Your task to perform on an android device: install app "Calculator" Image 0: 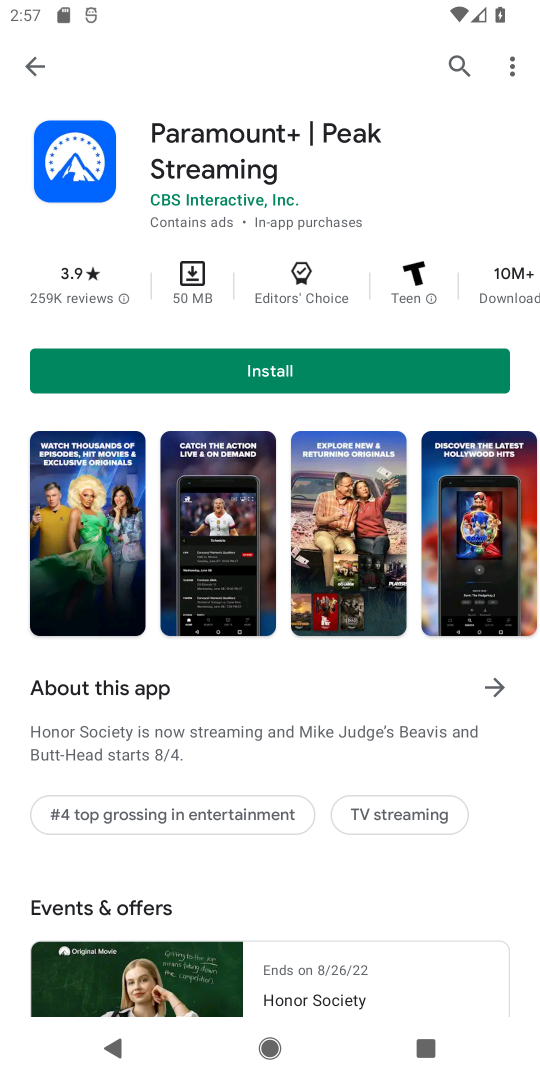
Step 0: click (465, 64)
Your task to perform on an android device: install app "Calculator" Image 1: 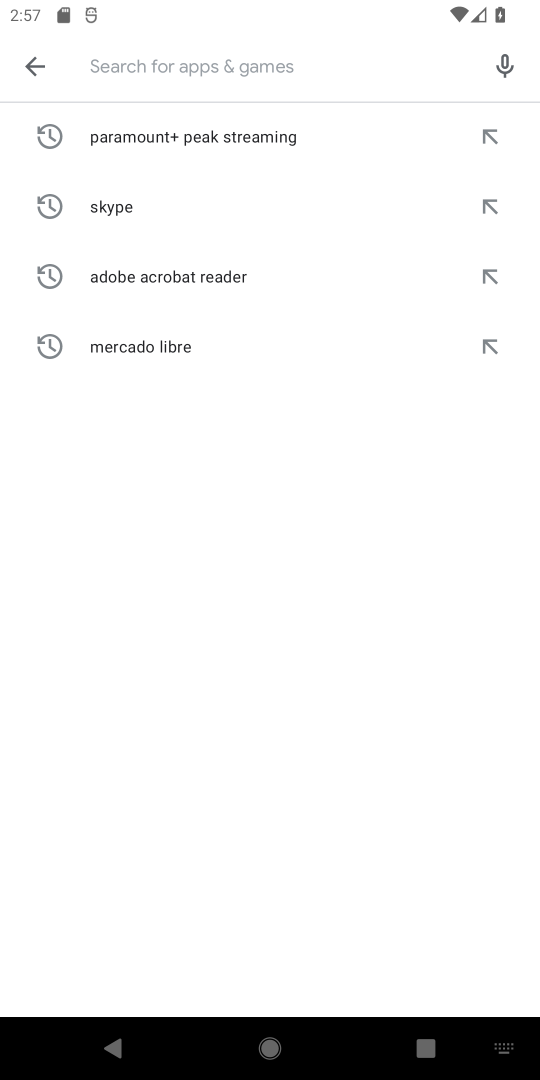
Step 1: type "Calculator"
Your task to perform on an android device: install app "Calculator" Image 2: 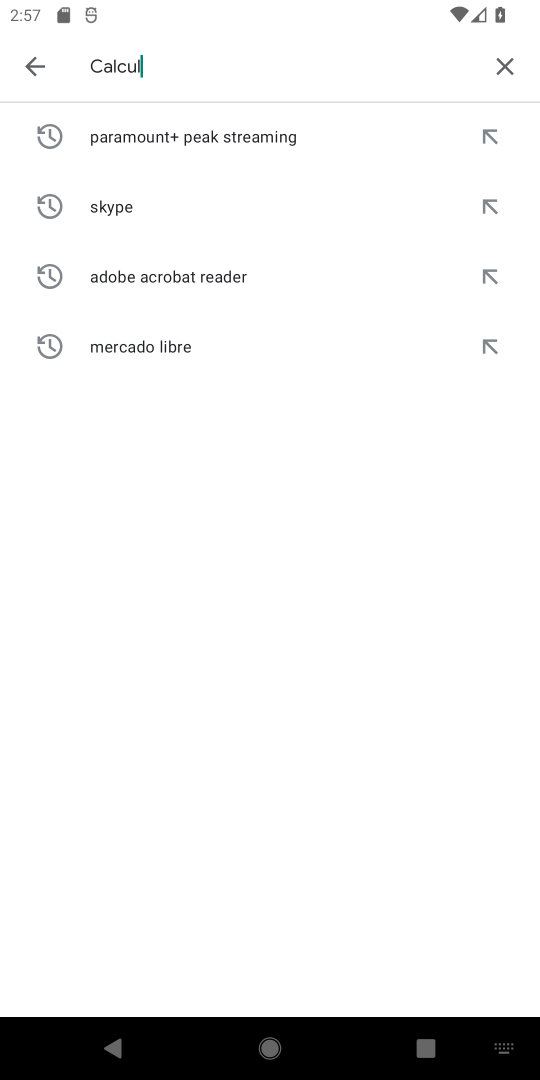
Step 2: type ""
Your task to perform on an android device: install app "Calculator" Image 3: 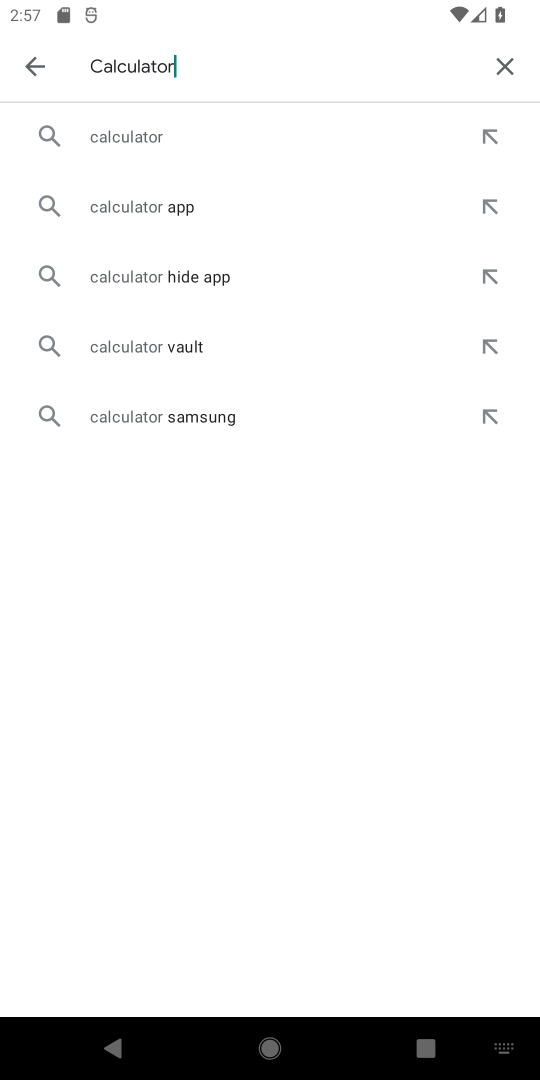
Step 3: click (146, 147)
Your task to perform on an android device: install app "Calculator" Image 4: 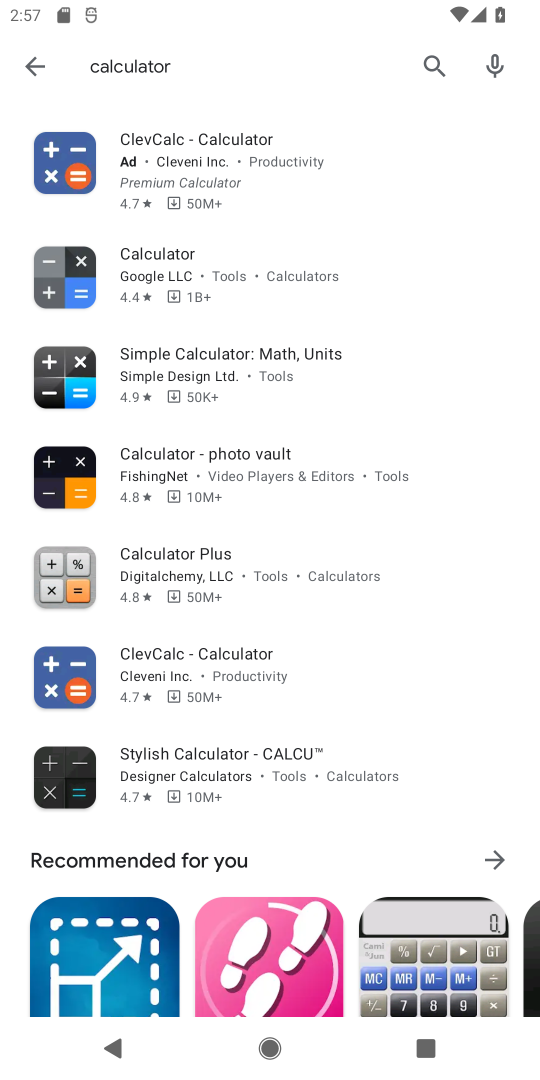
Step 4: click (193, 286)
Your task to perform on an android device: install app "Calculator" Image 5: 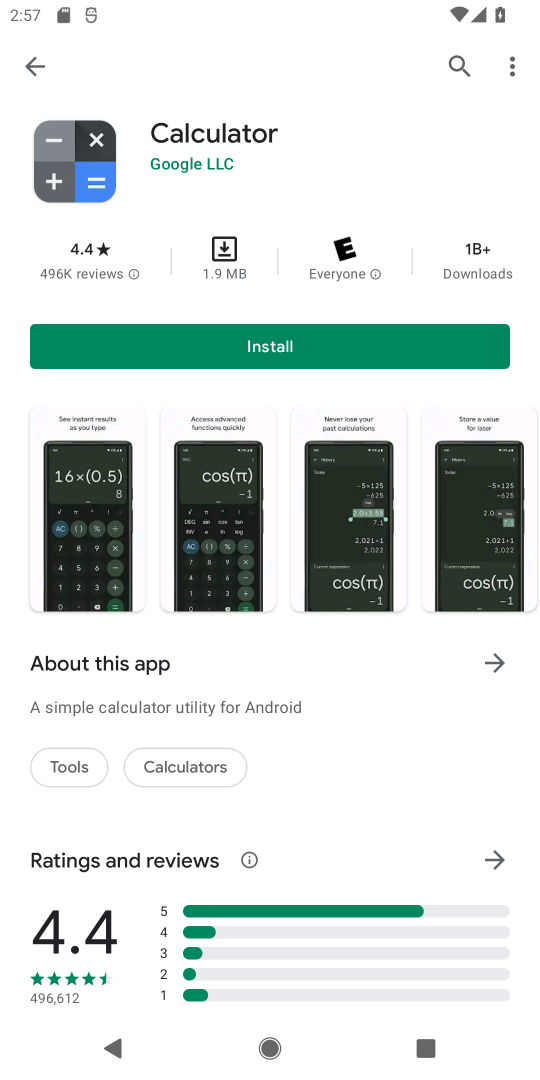
Step 5: click (259, 340)
Your task to perform on an android device: install app "Calculator" Image 6: 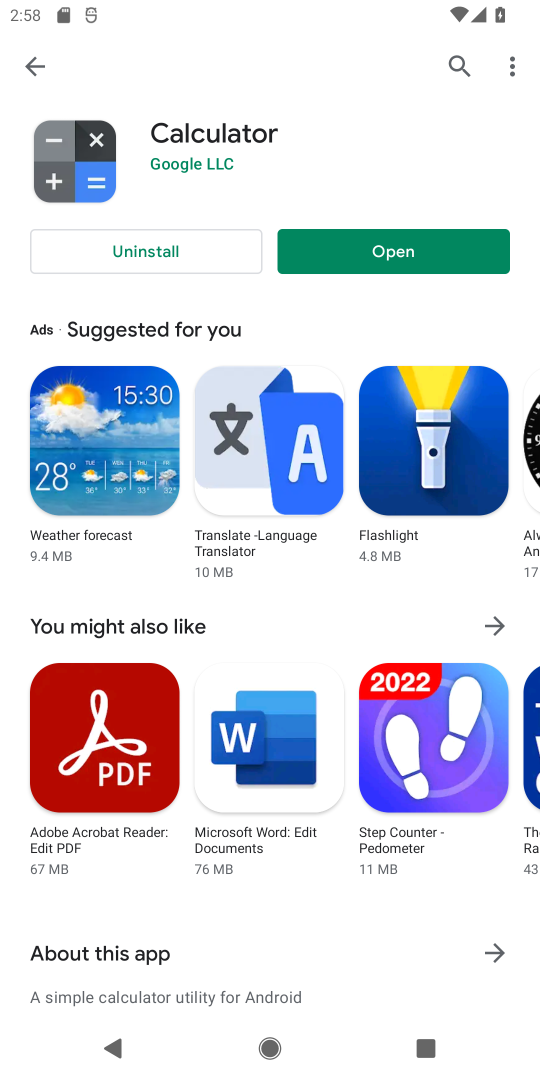
Step 6: task complete